Your task to perform on an android device: Turn off the flashlight Image 0: 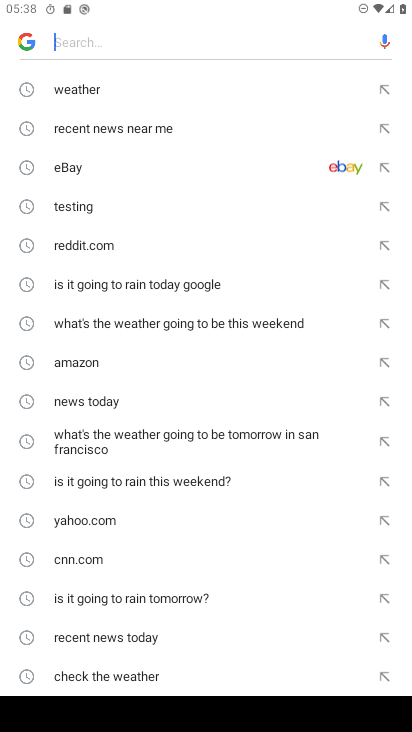
Step 0: press home button
Your task to perform on an android device: Turn off the flashlight Image 1: 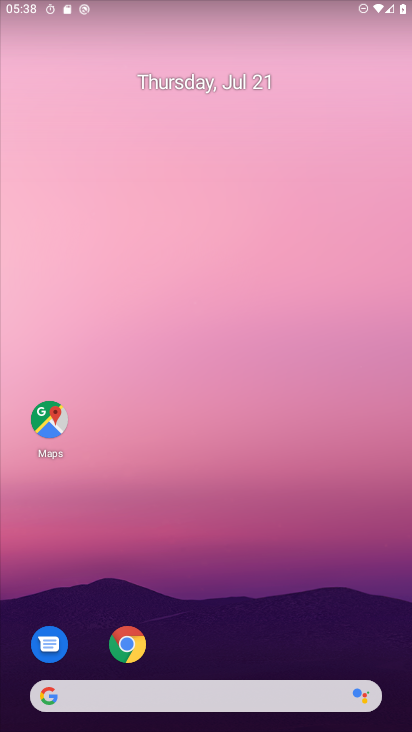
Step 1: task complete